Your task to perform on an android device: toggle notifications settings in the gmail app Image 0: 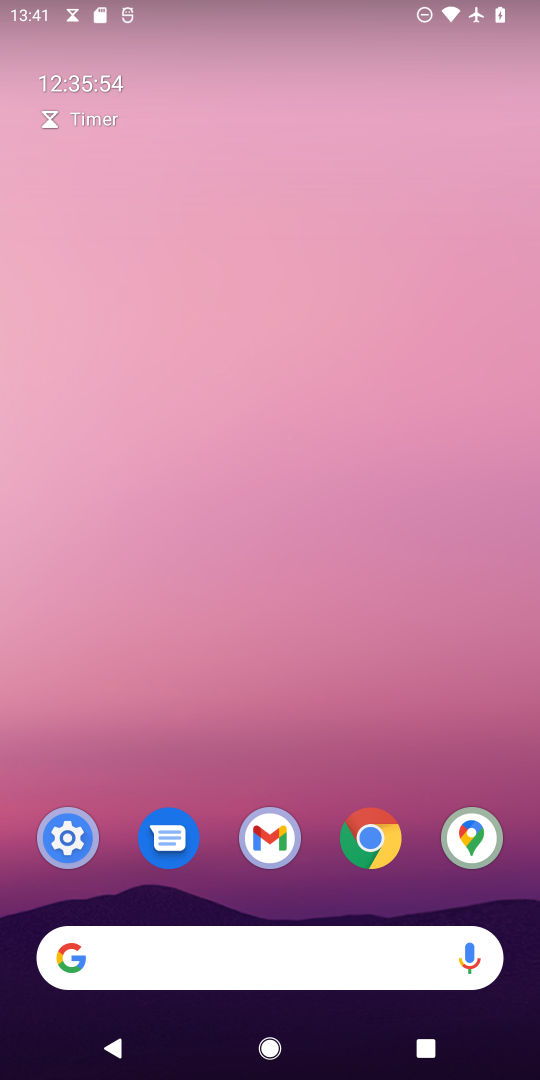
Step 0: press home button
Your task to perform on an android device: toggle notifications settings in the gmail app Image 1: 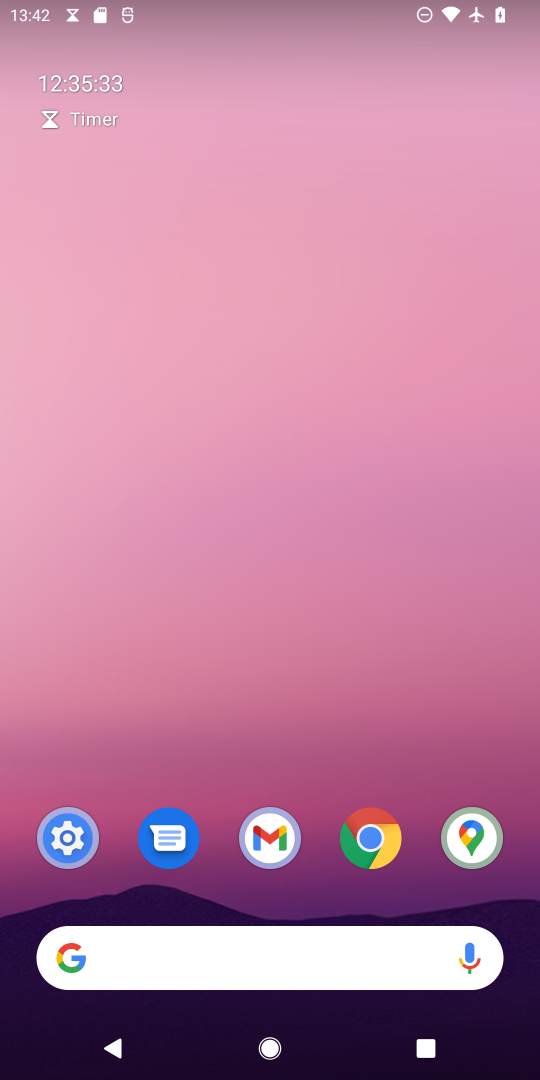
Step 1: click (260, 833)
Your task to perform on an android device: toggle notifications settings in the gmail app Image 2: 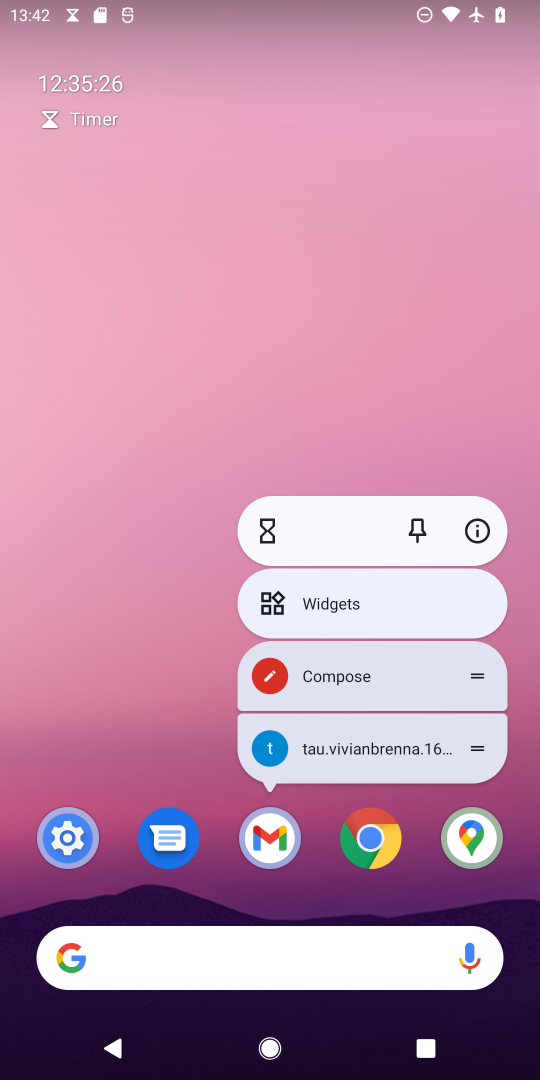
Step 2: click (260, 834)
Your task to perform on an android device: toggle notifications settings in the gmail app Image 3: 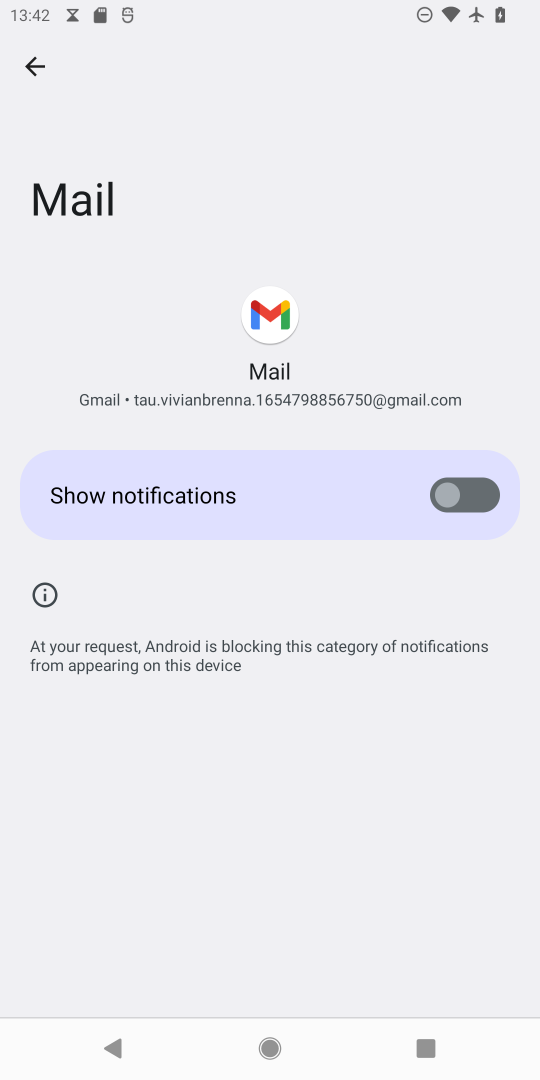
Step 3: click (459, 492)
Your task to perform on an android device: toggle notifications settings in the gmail app Image 4: 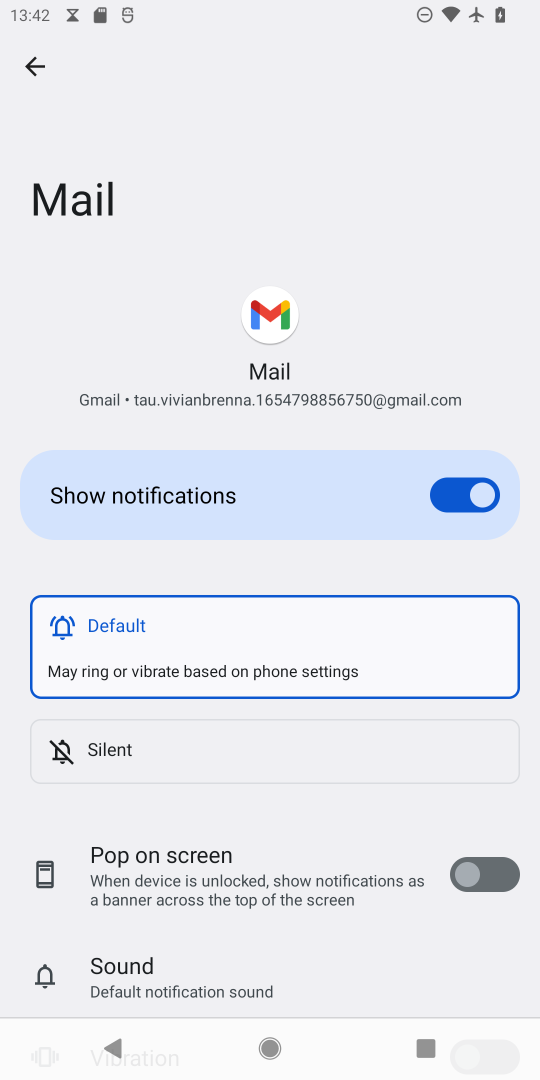
Step 4: task complete